Your task to perform on an android device: check battery use Image 0: 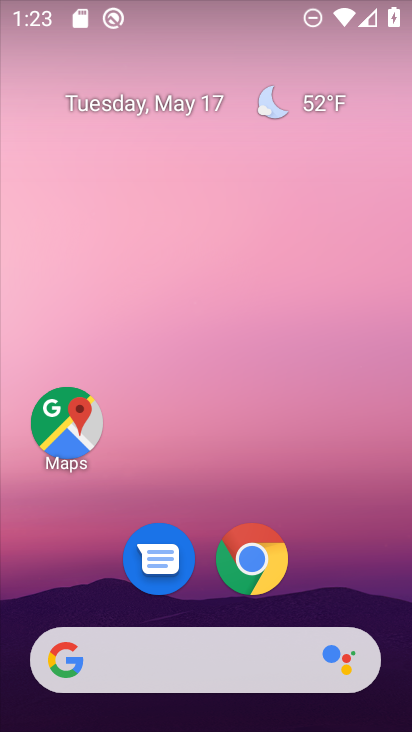
Step 0: drag from (337, 575) to (197, 137)
Your task to perform on an android device: check battery use Image 1: 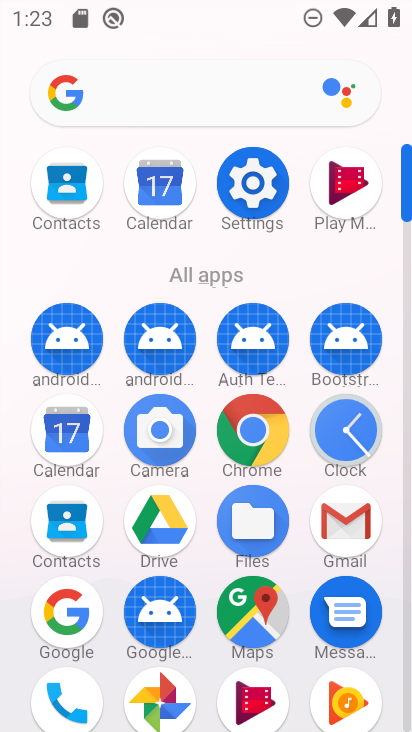
Step 1: click (255, 178)
Your task to perform on an android device: check battery use Image 2: 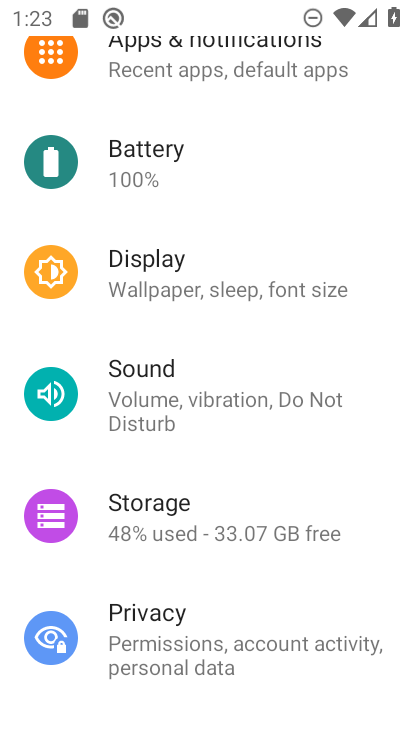
Step 2: click (164, 159)
Your task to perform on an android device: check battery use Image 3: 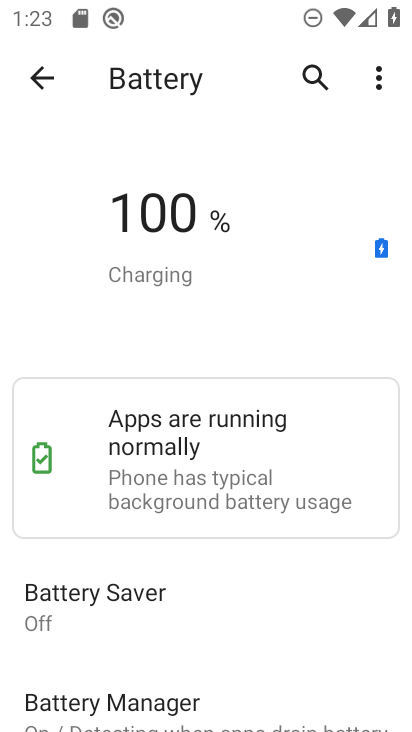
Step 3: click (378, 79)
Your task to perform on an android device: check battery use Image 4: 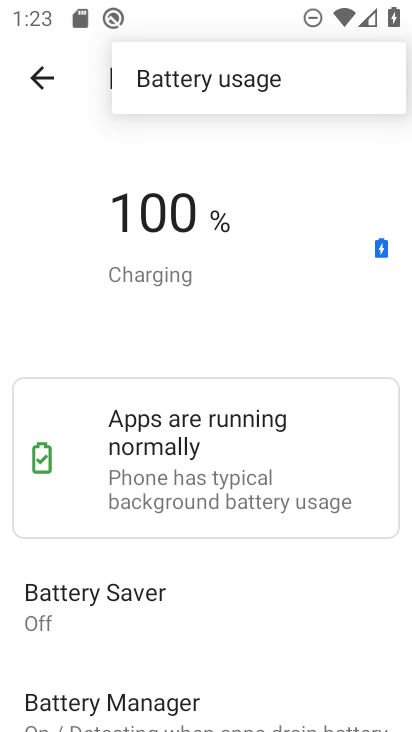
Step 4: click (257, 83)
Your task to perform on an android device: check battery use Image 5: 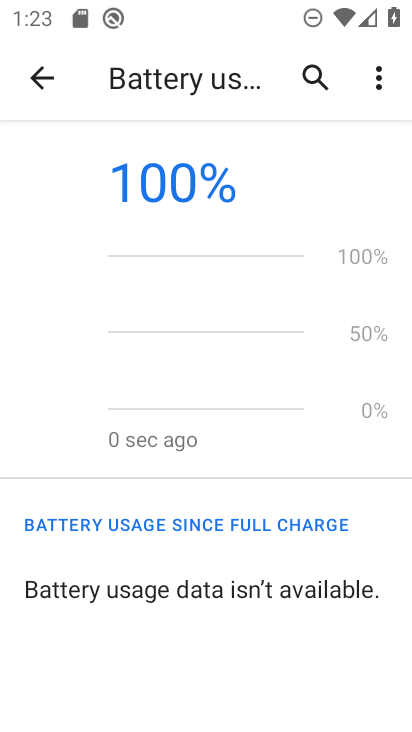
Step 5: task complete